Your task to perform on an android device: Open the map Image 0: 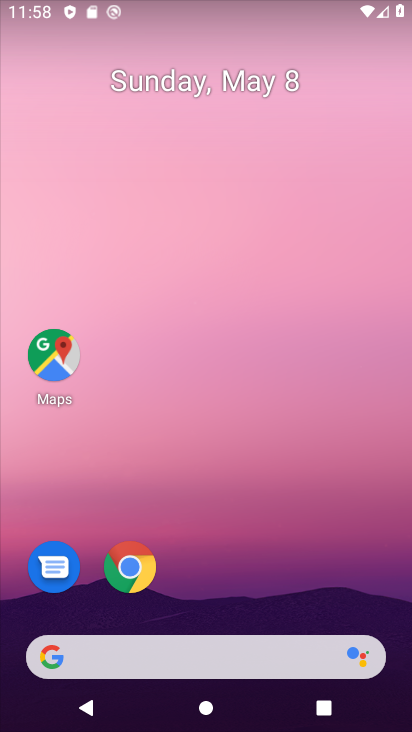
Step 0: drag from (227, 696) to (238, 152)
Your task to perform on an android device: Open the map Image 1: 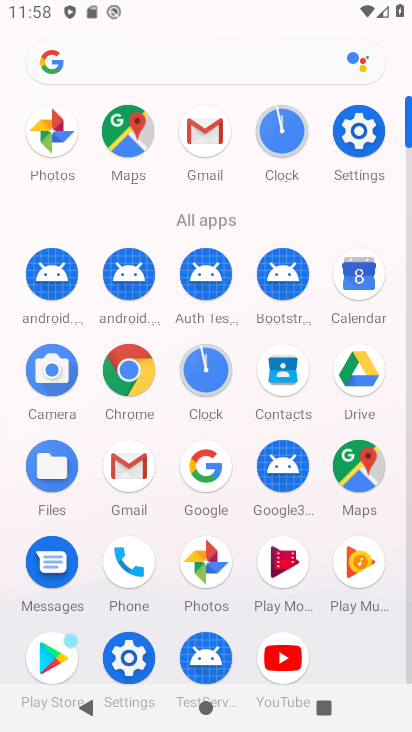
Step 1: click (365, 470)
Your task to perform on an android device: Open the map Image 2: 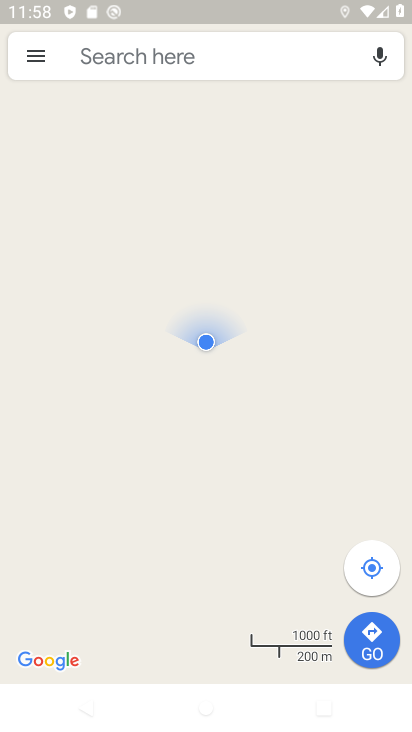
Step 2: task complete